Your task to perform on an android device: turn off location history Image 0: 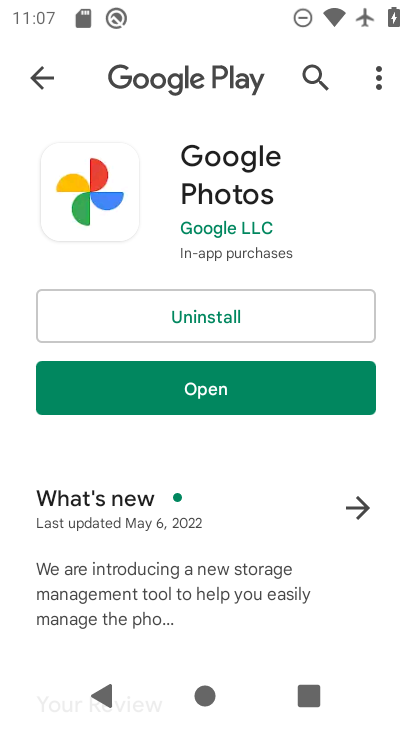
Step 0: press back button
Your task to perform on an android device: turn off location history Image 1: 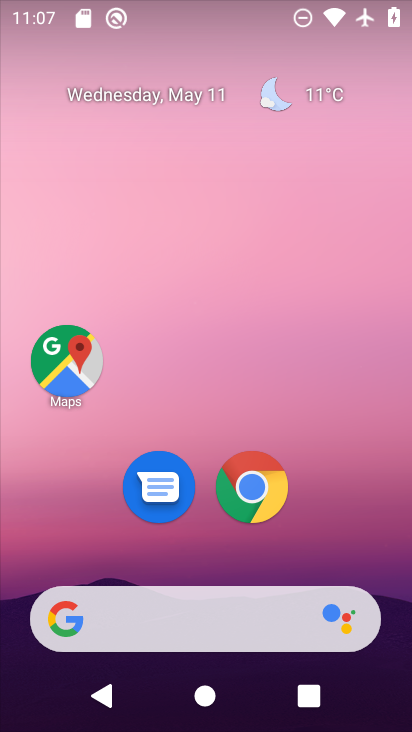
Step 1: drag from (362, 517) to (267, 2)
Your task to perform on an android device: turn off location history Image 2: 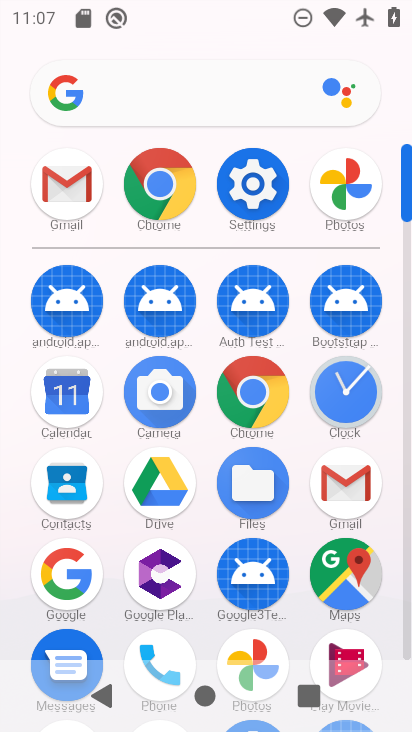
Step 2: drag from (13, 511) to (7, 210)
Your task to perform on an android device: turn off location history Image 3: 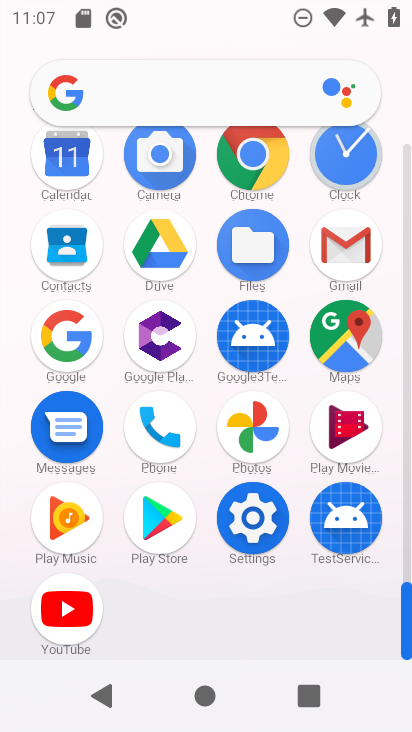
Step 3: click (252, 514)
Your task to perform on an android device: turn off location history Image 4: 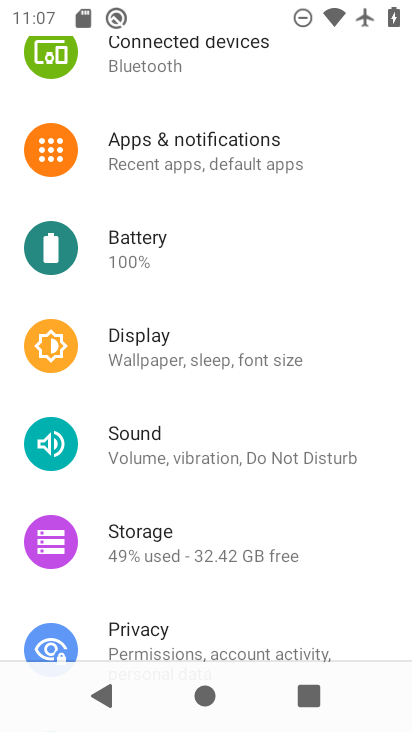
Step 4: drag from (245, 164) to (309, 554)
Your task to perform on an android device: turn off location history Image 5: 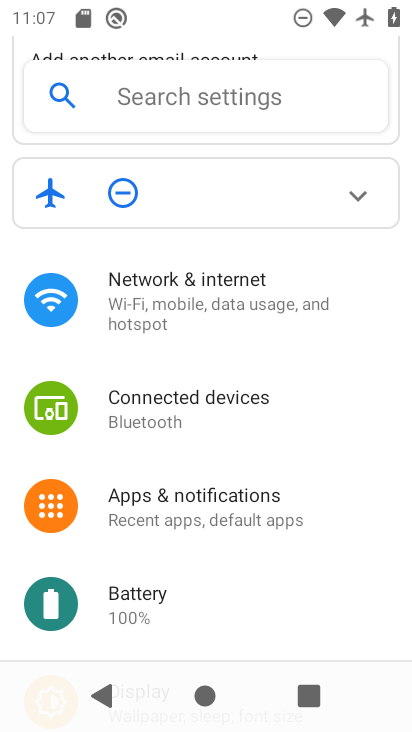
Step 5: drag from (277, 583) to (300, 236)
Your task to perform on an android device: turn off location history Image 6: 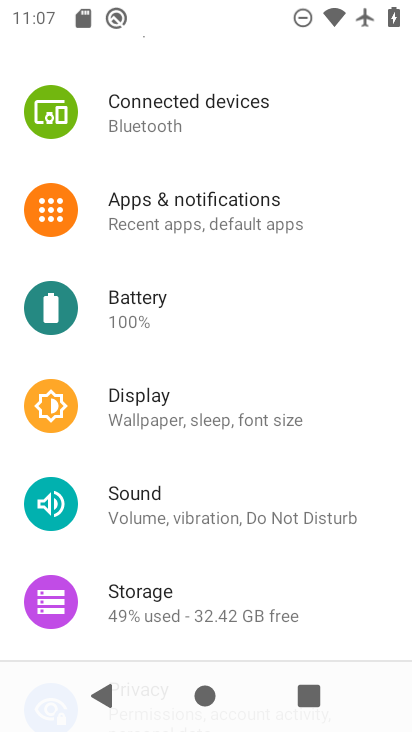
Step 6: drag from (281, 568) to (283, 178)
Your task to perform on an android device: turn off location history Image 7: 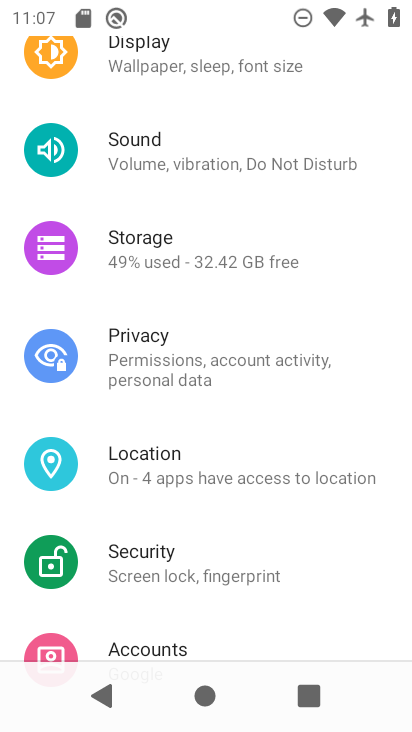
Step 7: click (225, 458)
Your task to perform on an android device: turn off location history Image 8: 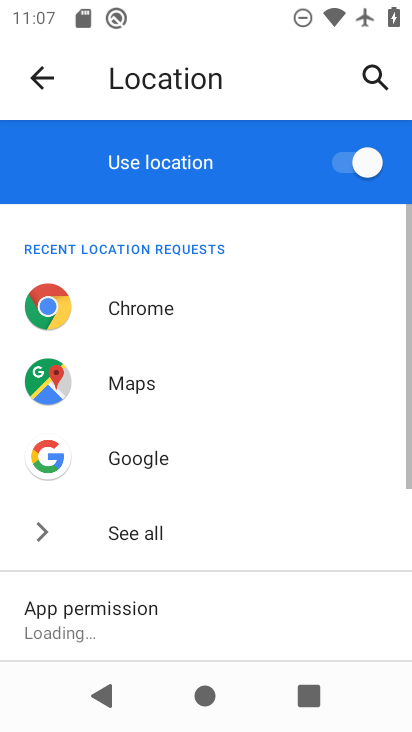
Step 8: drag from (267, 548) to (270, 158)
Your task to perform on an android device: turn off location history Image 9: 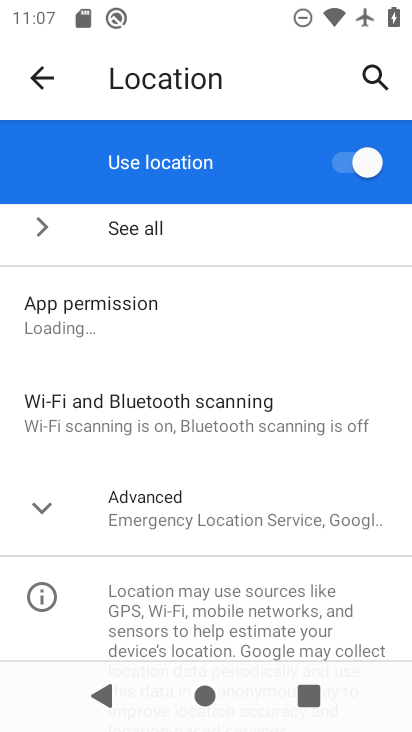
Step 9: click (64, 508)
Your task to perform on an android device: turn off location history Image 10: 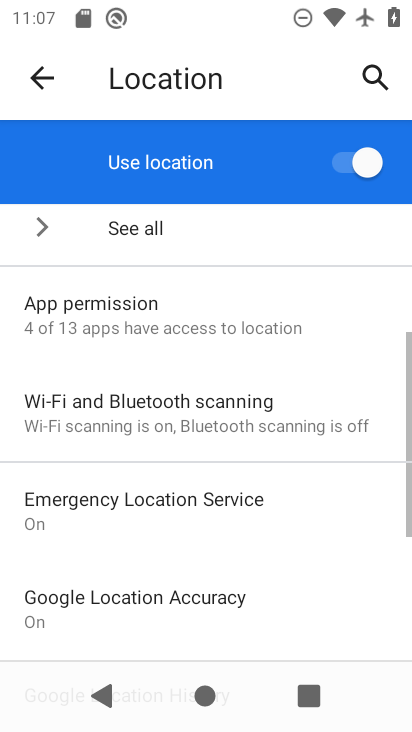
Step 10: drag from (207, 613) to (255, 193)
Your task to perform on an android device: turn off location history Image 11: 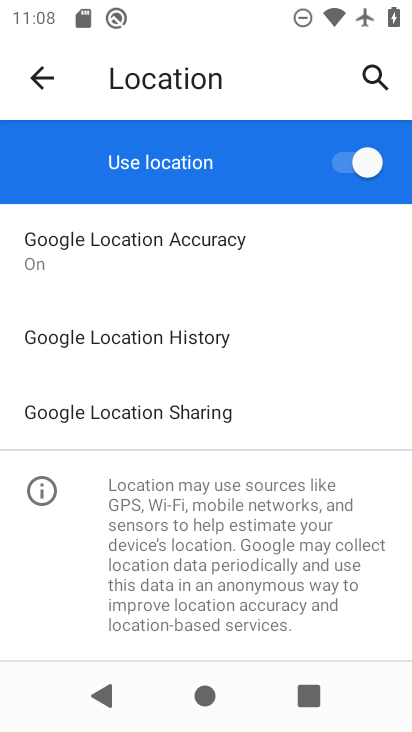
Step 11: click (197, 334)
Your task to perform on an android device: turn off location history Image 12: 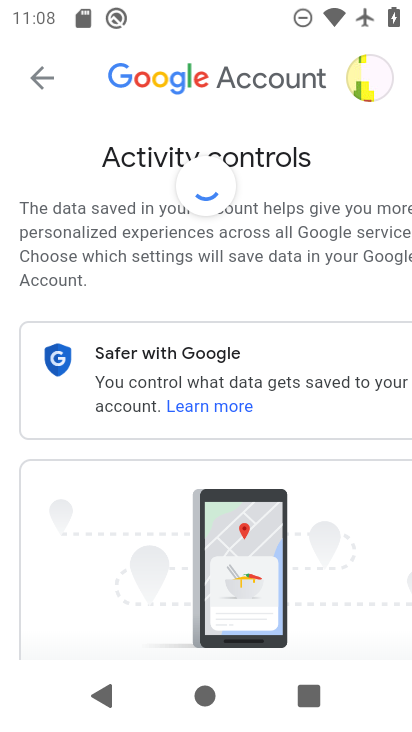
Step 12: drag from (128, 387) to (112, 158)
Your task to perform on an android device: turn off location history Image 13: 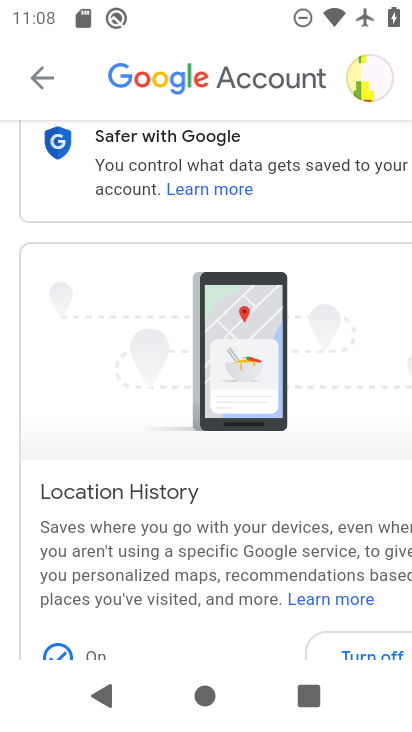
Step 13: drag from (123, 556) to (124, 143)
Your task to perform on an android device: turn off location history Image 14: 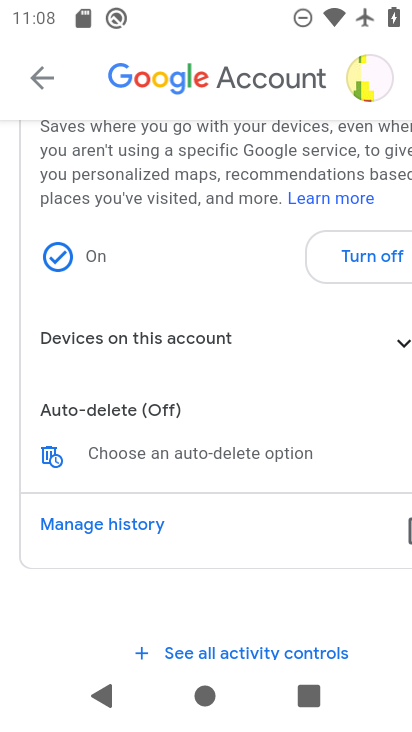
Step 14: click (159, 456)
Your task to perform on an android device: turn off location history Image 15: 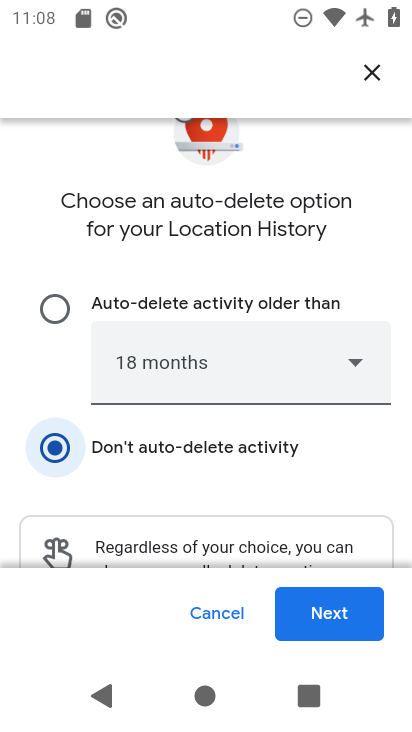
Step 15: click (337, 620)
Your task to perform on an android device: turn off location history Image 16: 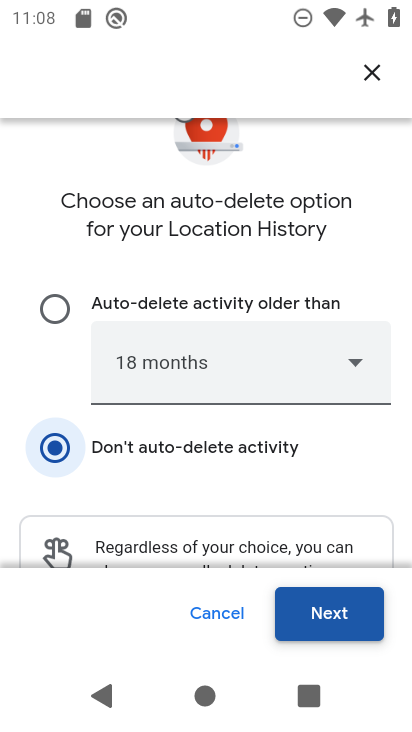
Step 16: click (338, 620)
Your task to perform on an android device: turn off location history Image 17: 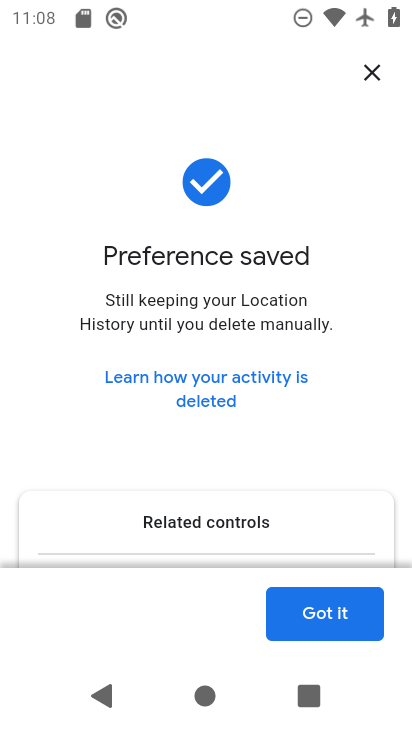
Step 17: task complete